Your task to perform on an android device: Show me popular games on the Play Store Image 0: 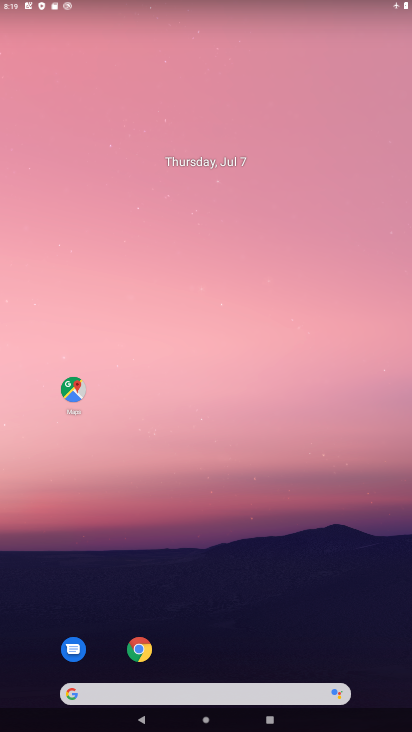
Step 0: drag from (202, 599) to (197, 257)
Your task to perform on an android device: Show me popular games on the Play Store Image 1: 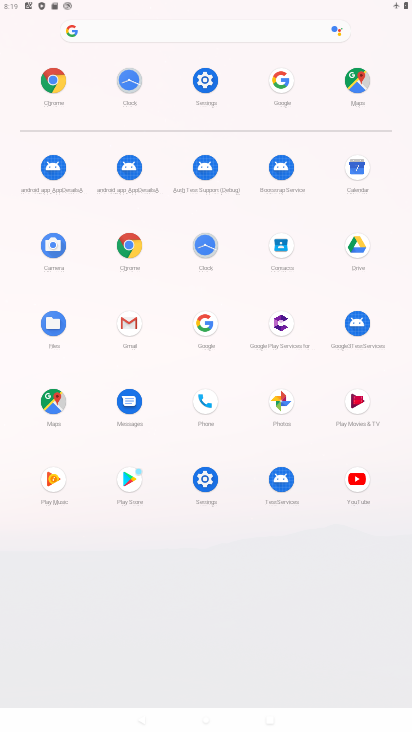
Step 1: click (134, 477)
Your task to perform on an android device: Show me popular games on the Play Store Image 2: 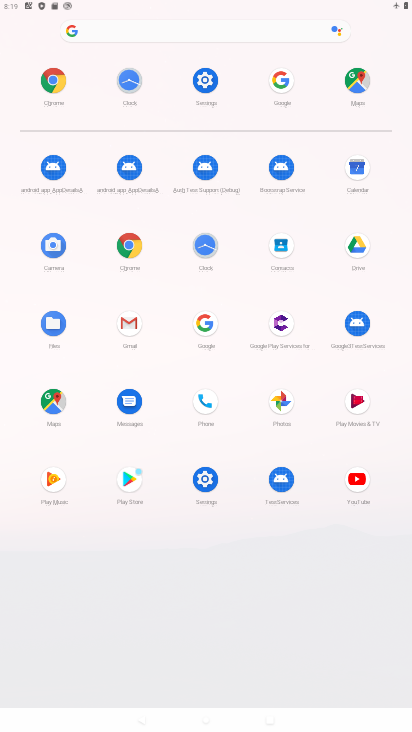
Step 2: click (133, 477)
Your task to perform on an android device: Show me popular games on the Play Store Image 3: 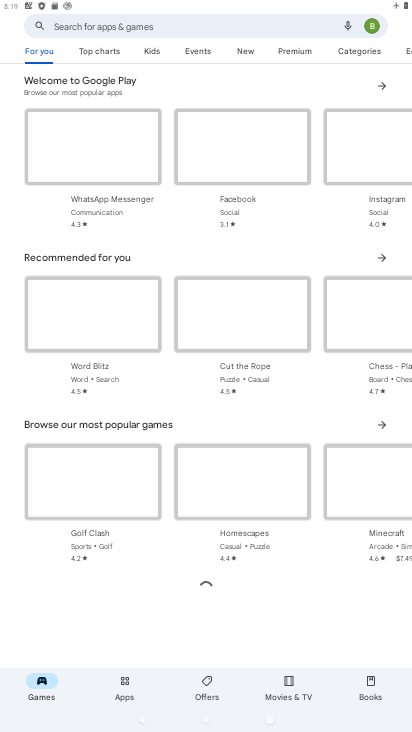
Step 3: task complete